Your task to perform on an android device: turn off wifi Image 0: 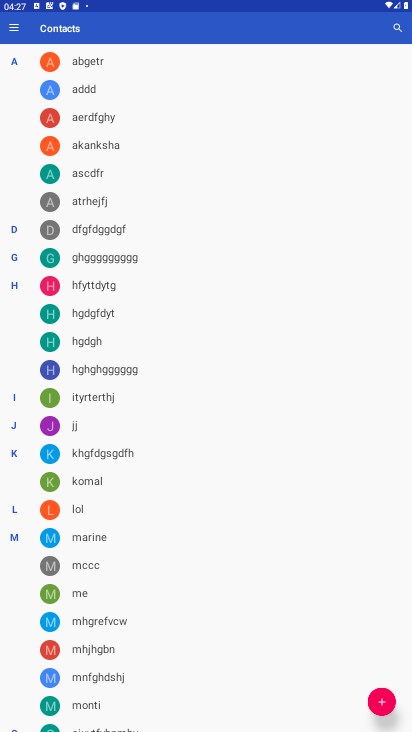
Step 0: press home button
Your task to perform on an android device: turn off wifi Image 1: 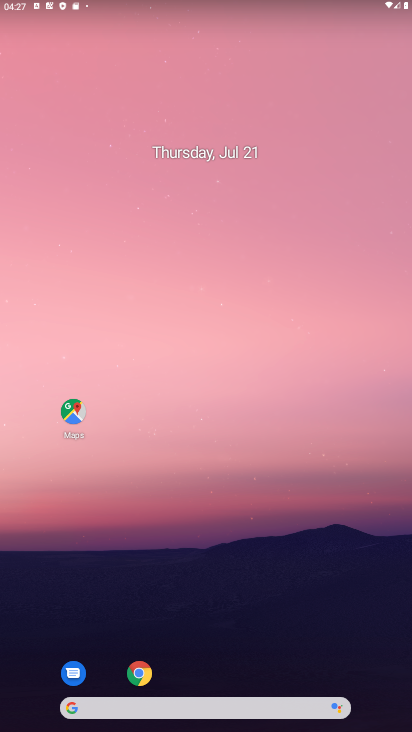
Step 1: drag from (378, 693) to (330, 266)
Your task to perform on an android device: turn off wifi Image 2: 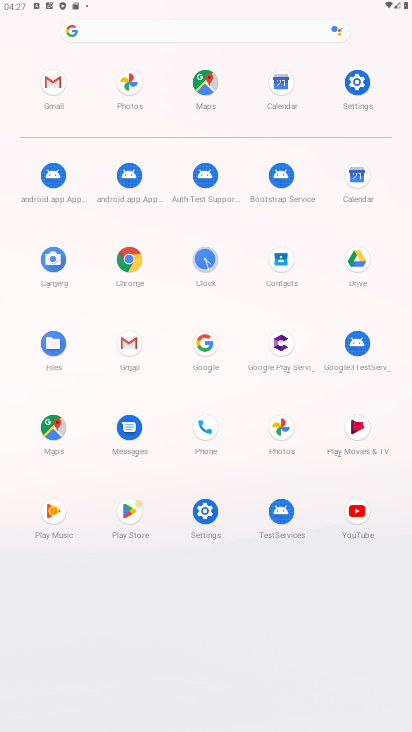
Step 2: click (202, 512)
Your task to perform on an android device: turn off wifi Image 3: 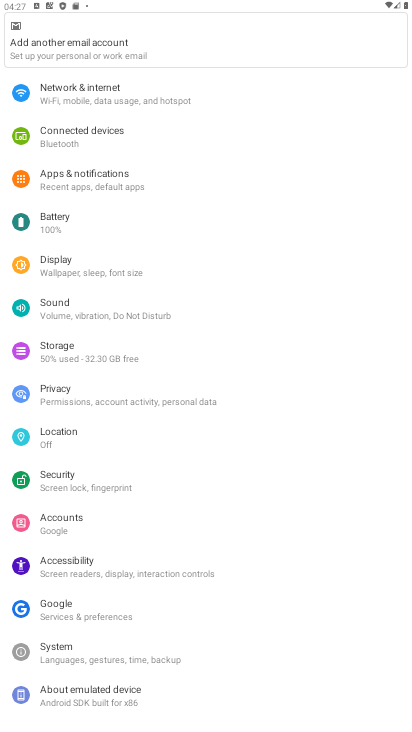
Step 3: click (88, 91)
Your task to perform on an android device: turn off wifi Image 4: 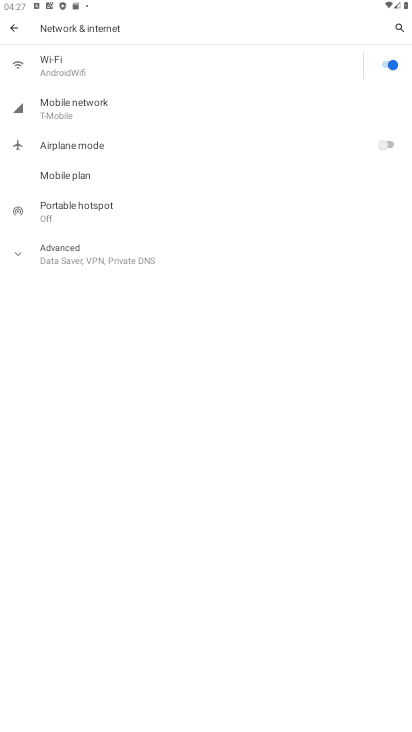
Step 4: click (383, 62)
Your task to perform on an android device: turn off wifi Image 5: 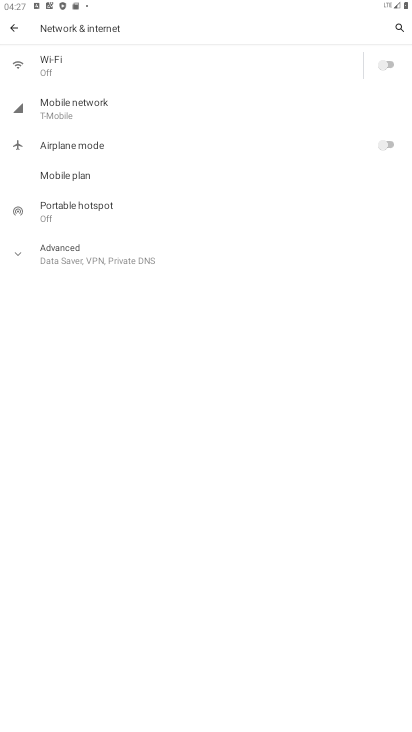
Step 5: task complete